Your task to perform on an android device: Do I have any events today? Image 0: 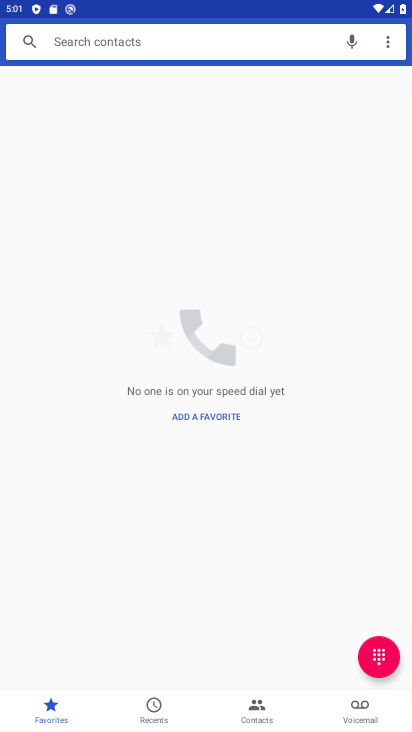
Step 0: click (394, 44)
Your task to perform on an android device: Do I have any events today? Image 1: 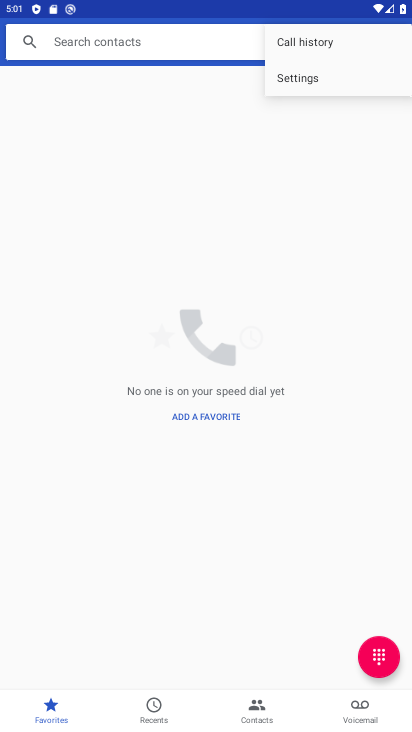
Step 1: press home button
Your task to perform on an android device: Do I have any events today? Image 2: 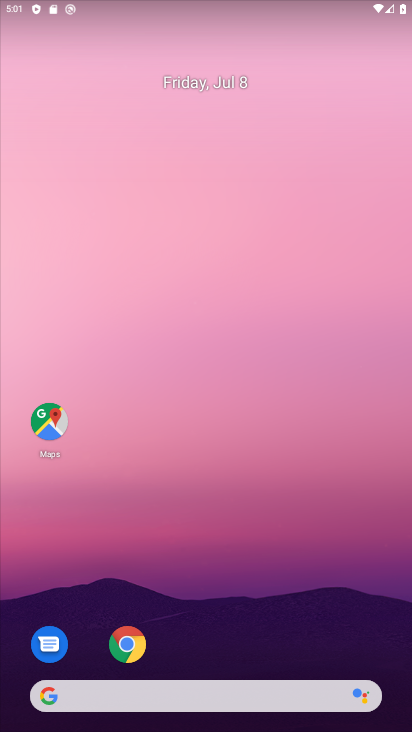
Step 2: click (297, 723)
Your task to perform on an android device: Do I have any events today? Image 3: 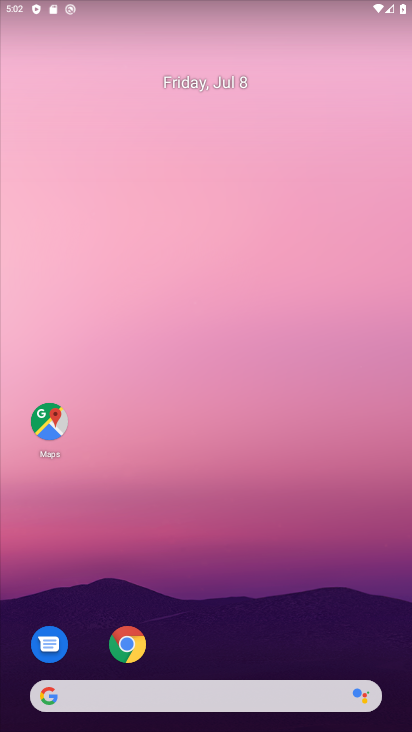
Step 3: drag from (229, 398) to (157, 29)
Your task to perform on an android device: Do I have any events today? Image 4: 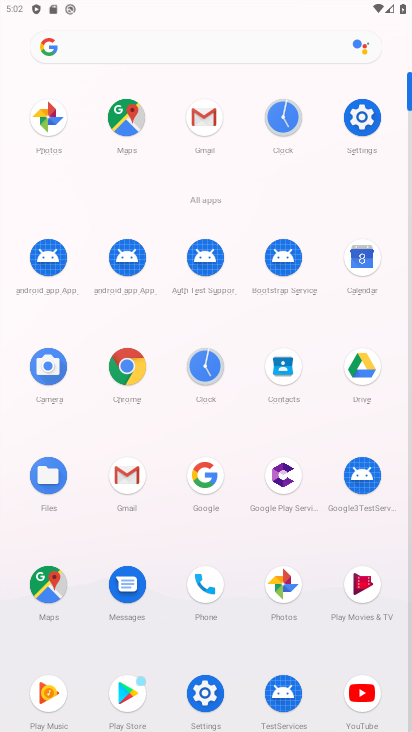
Step 4: click (309, 48)
Your task to perform on an android device: Do I have any events today? Image 5: 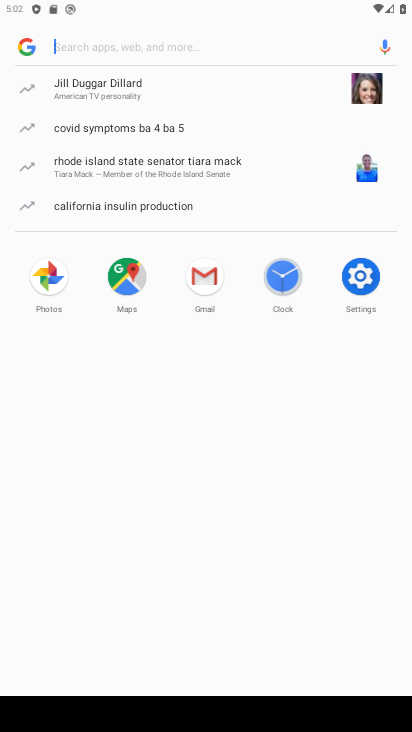
Step 5: type "Do I have any events today?"
Your task to perform on an android device: Do I have any events today? Image 6: 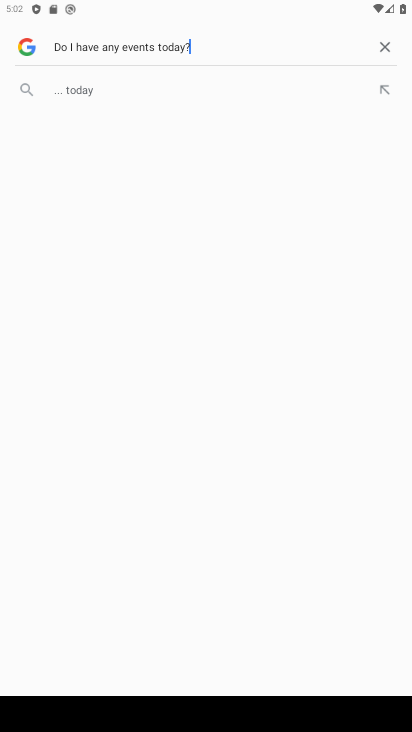
Step 6: type ""
Your task to perform on an android device: Do I have any events today? Image 7: 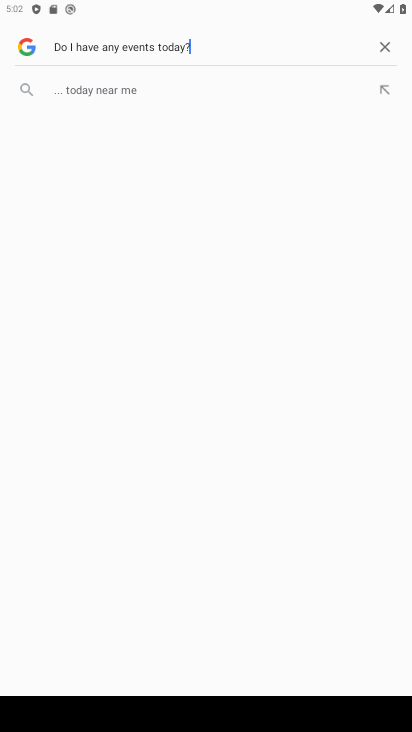
Step 7: press enter
Your task to perform on an android device: Do I have any events today? Image 8: 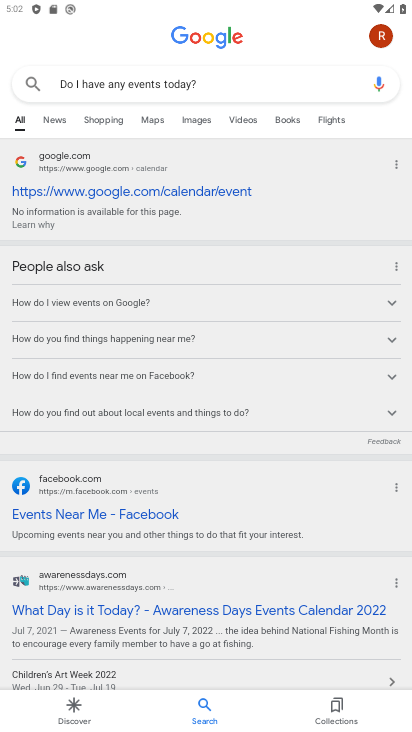
Step 8: click (123, 192)
Your task to perform on an android device: Do I have any events today? Image 9: 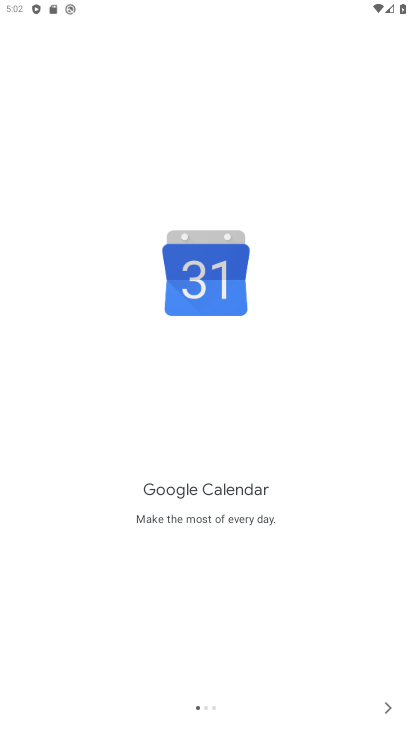
Step 9: click (383, 709)
Your task to perform on an android device: Do I have any events today? Image 10: 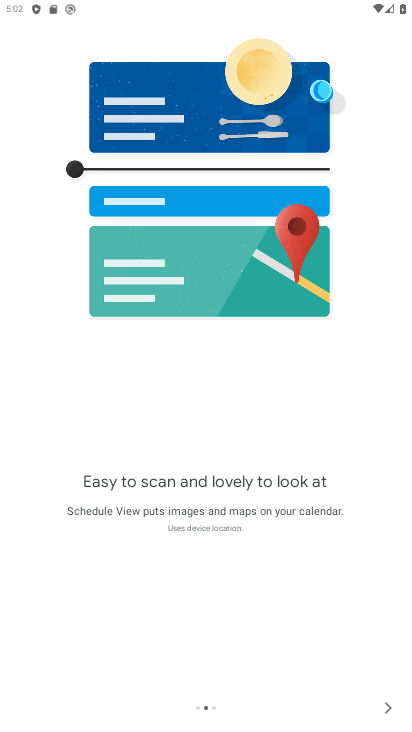
Step 10: click (383, 709)
Your task to perform on an android device: Do I have any events today? Image 11: 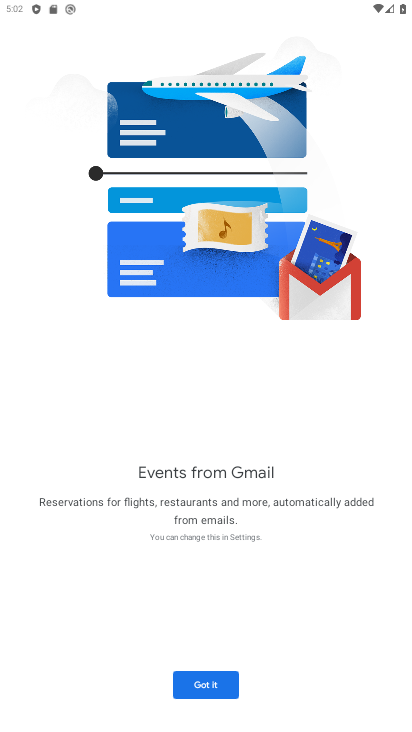
Step 11: click (228, 691)
Your task to perform on an android device: Do I have any events today? Image 12: 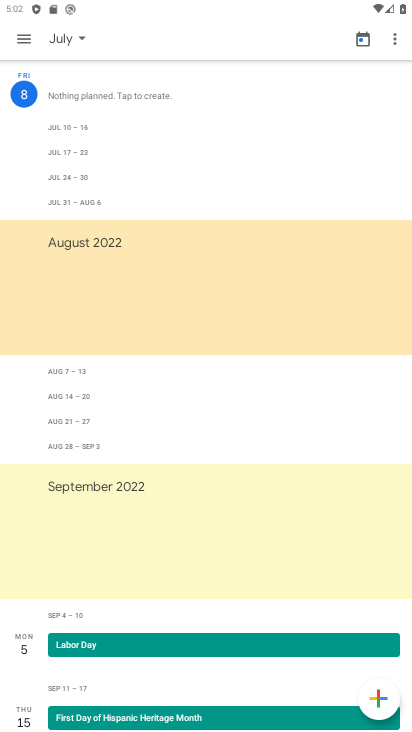
Step 12: task complete